Your task to perform on an android device: Go to privacy settings Image 0: 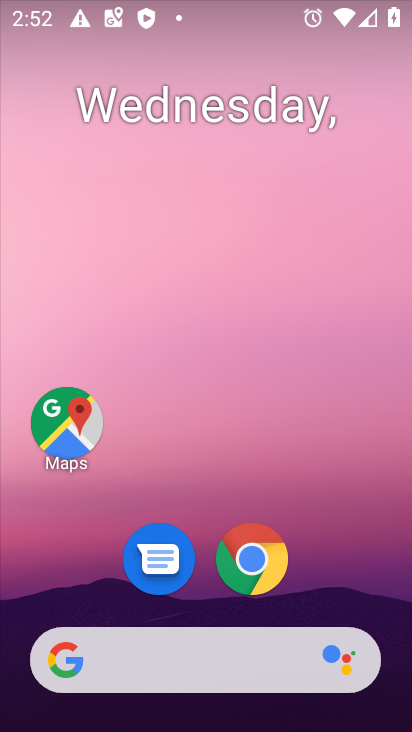
Step 0: drag from (206, 610) to (203, 14)
Your task to perform on an android device: Go to privacy settings Image 1: 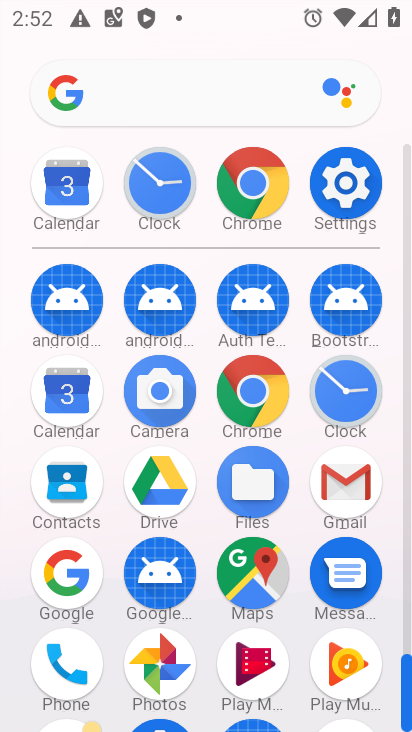
Step 1: click (345, 182)
Your task to perform on an android device: Go to privacy settings Image 2: 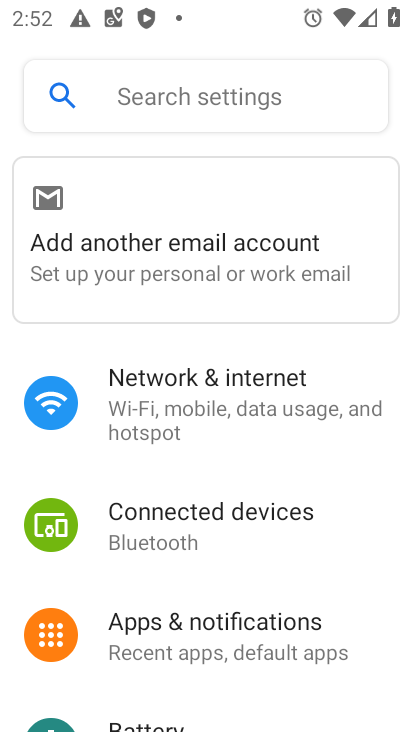
Step 2: drag from (202, 702) to (221, 387)
Your task to perform on an android device: Go to privacy settings Image 3: 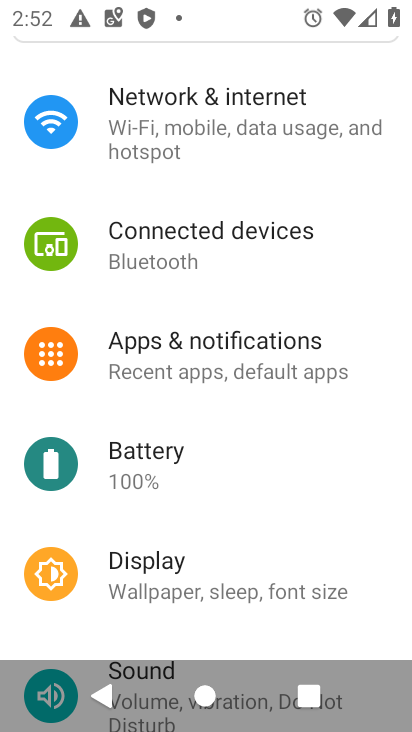
Step 3: drag from (169, 626) to (191, 234)
Your task to perform on an android device: Go to privacy settings Image 4: 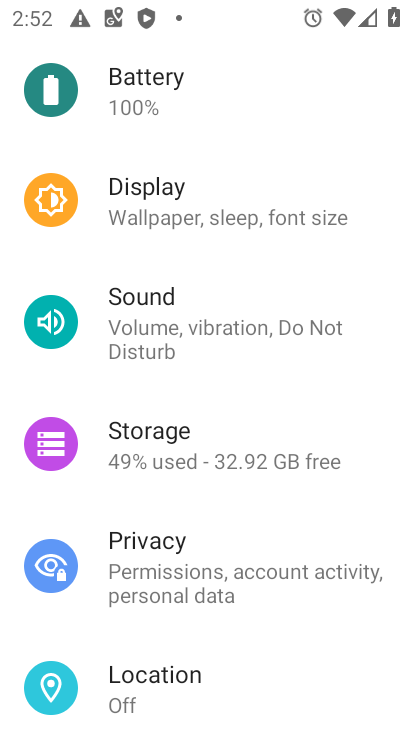
Step 4: click (124, 568)
Your task to perform on an android device: Go to privacy settings Image 5: 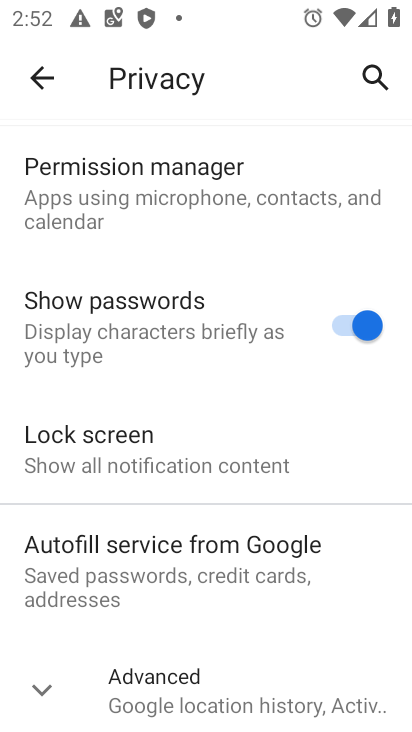
Step 5: task complete